Your task to perform on an android device: turn on the 12-hour format for clock Image 0: 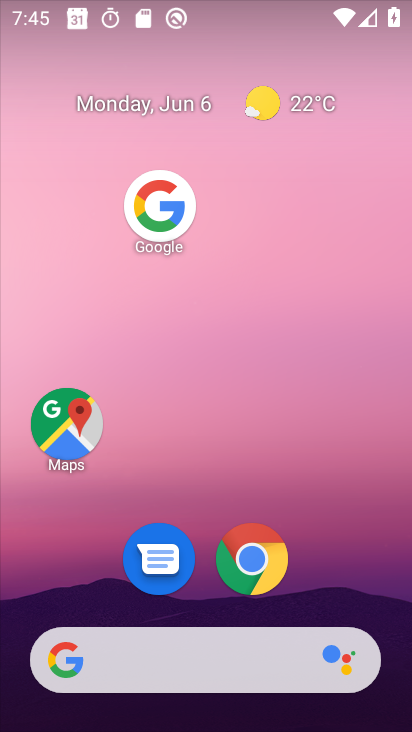
Step 0: drag from (189, 503) to (188, 246)
Your task to perform on an android device: turn on the 12-hour format for clock Image 1: 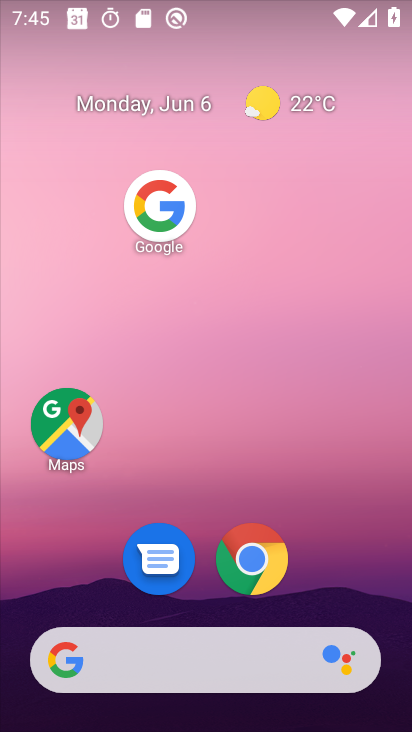
Step 1: drag from (220, 599) to (258, 201)
Your task to perform on an android device: turn on the 12-hour format for clock Image 2: 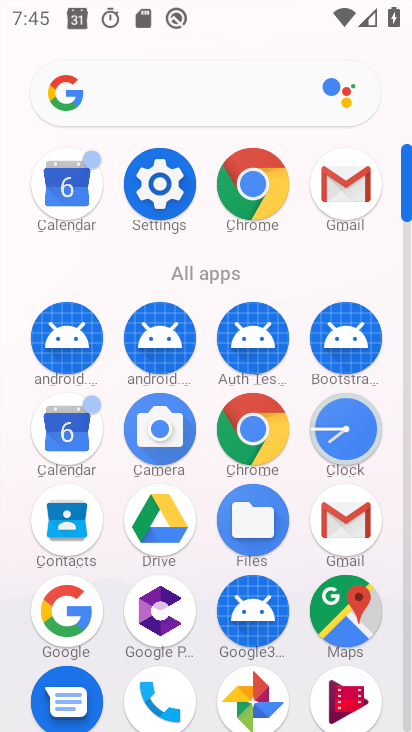
Step 2: click (345, 432)
Your task to perform on an android device: turn on the 12-hour format for clock Image 3: 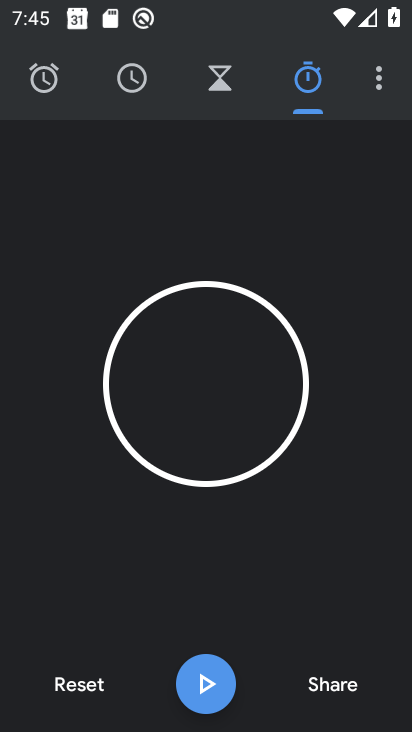
Step 3: click (380, 84)
Your task to perform on an android device: turn on the 12-hour format for clock Image 4: 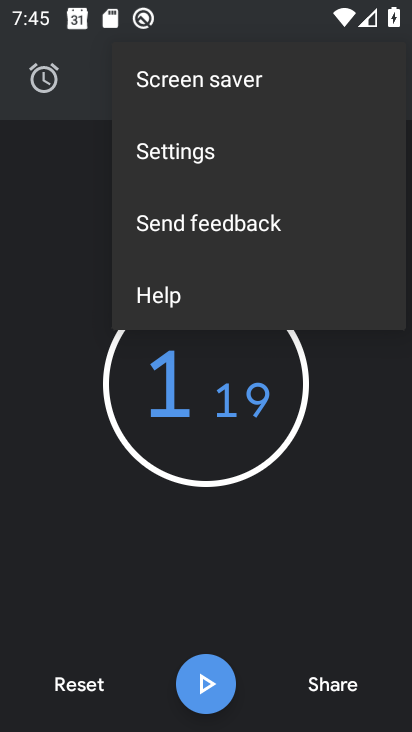
Step 4: click (192, 162)
Your task to perform on an android device: turn on the 12-hour format for clock Image 5: 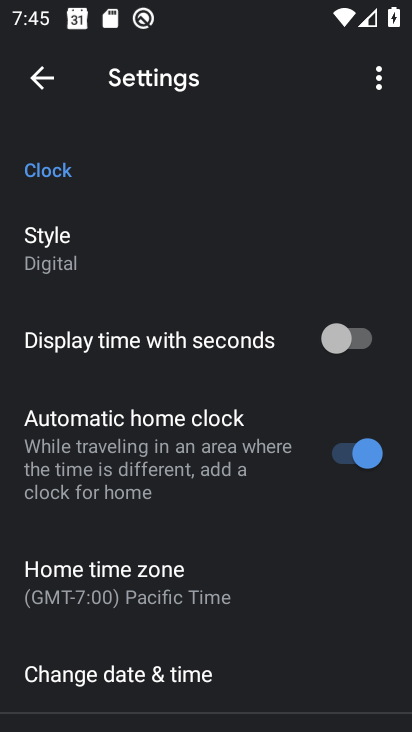
Step 5: click (145, 666)
Your task to perform on an android device: turn on the 12-hour format for clock Image 6: 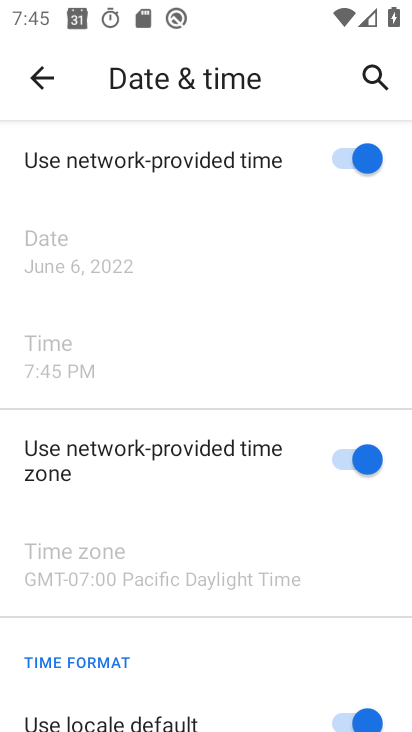
Step 6: task complete